Your task to perform on an android device: move a message to another label in the gmail app Image 0: 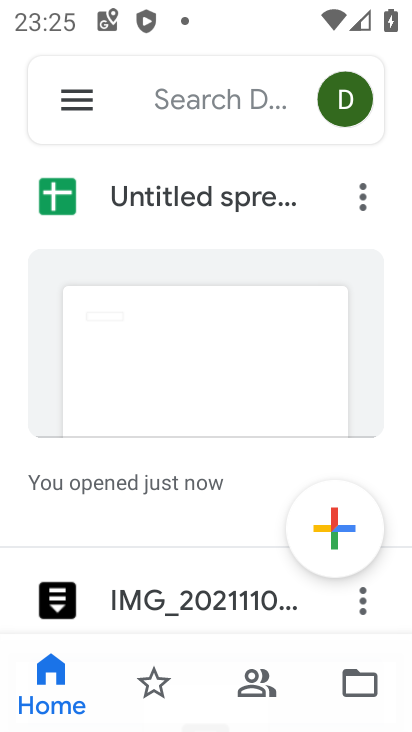
Step 0: press home button
Your task to perform on an android device: move a message to another label in the gmail app Image 1: 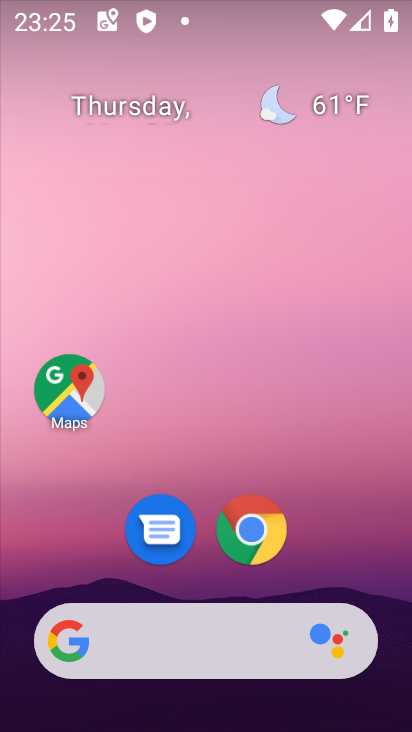
Step 1: drag from (353, 534) to (241, 196)
Your task to perform on an android device: move a message to another label in the gmail app Image 2: 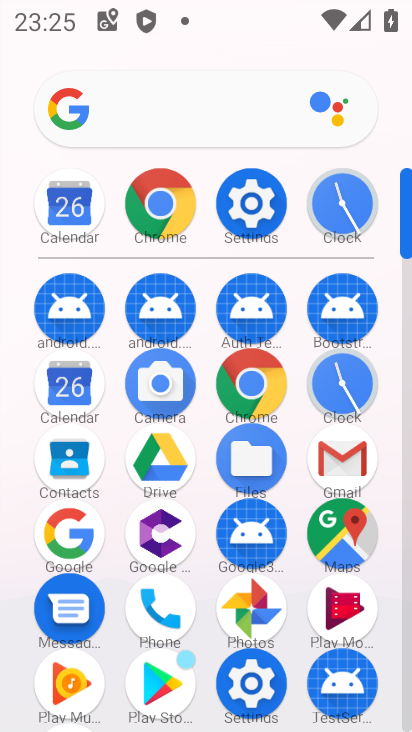
Step 2: click (328, 468)
Your task to perform on an android device: move a message to another label in the gmail app Image 3: 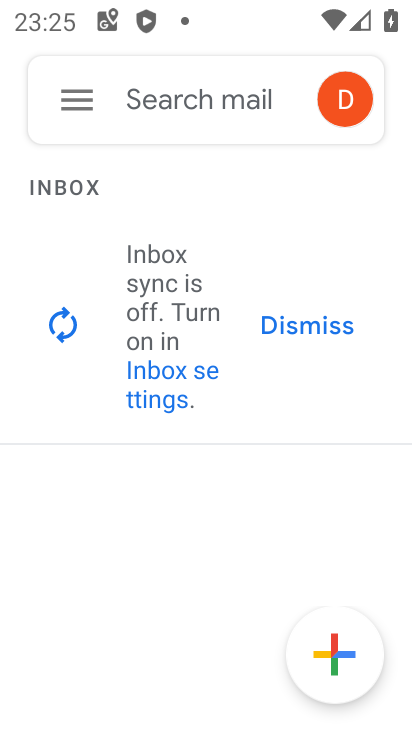
Step 3: click (96, 104)
Your task to perform on an android device: move a message to another label in the gmail app Image 4: 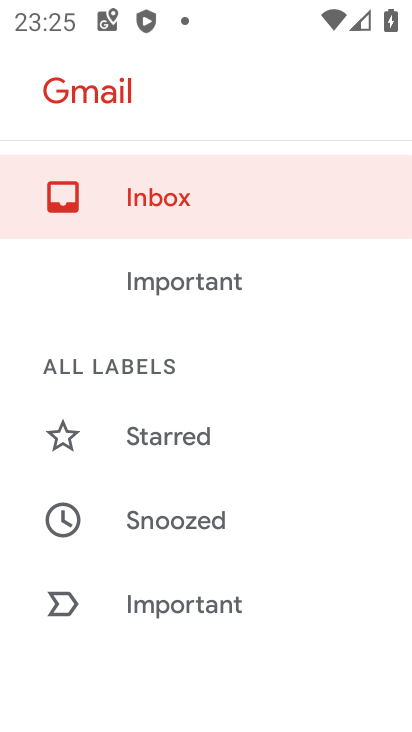
Step 4: drag from (203, 556) to (300, 80)
Your task to perform on an android device: move a message to another label in the gmail app Image 5: 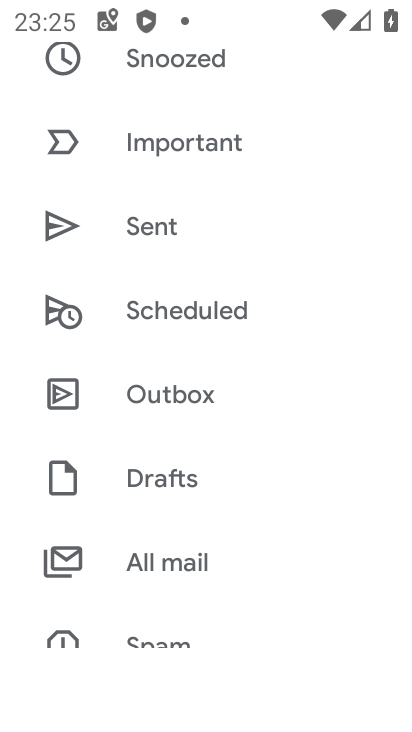
Step 5: drag from (243, 580) to (245, 167)
Your task to perform on an android device: move a message to another label in the gmail app Image 6: 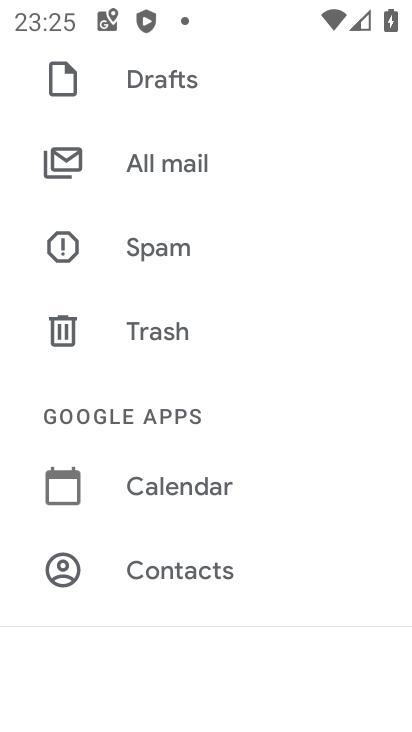
Step 6: click (235, 186)
Your task to perform on an android device: move a message to another label in the gmail app Image 7: 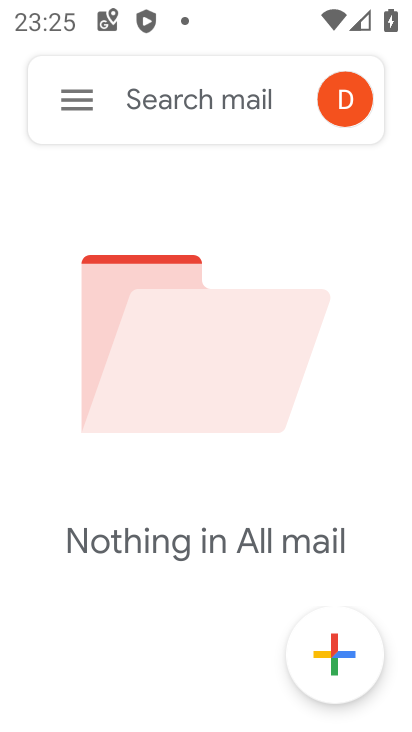
Step 7: task complete